Your task to perform on an android device: Go to wifi settings Image 0: 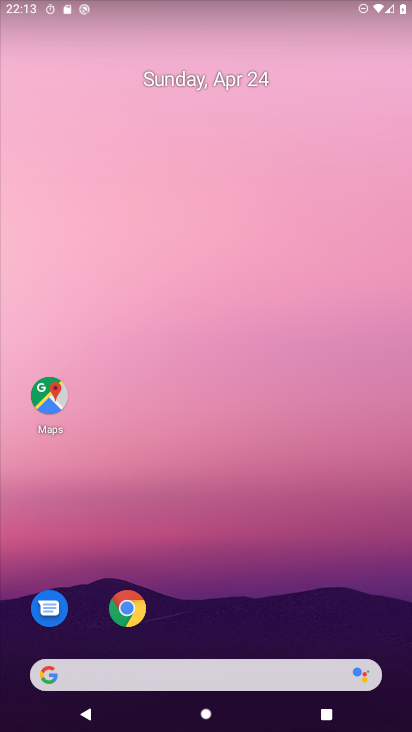
Step 0: drag from (294, 571) to (277, 72)
Your task to perform on an android device: Go to wifi settings Image 1: 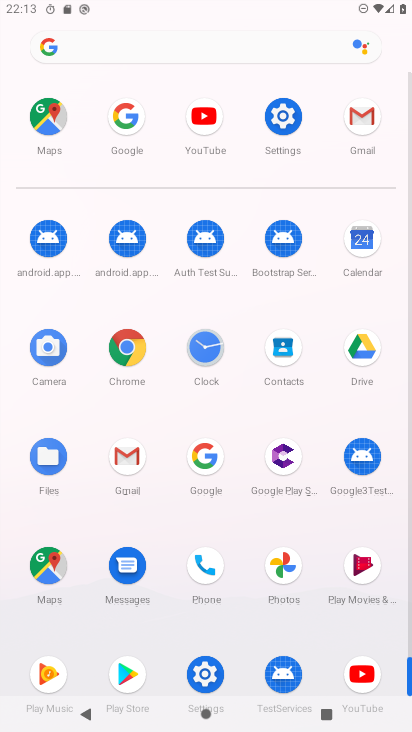
Step 1: click (283, 107)
Your task to perform on an android device: Go to wifi settings Image 2: 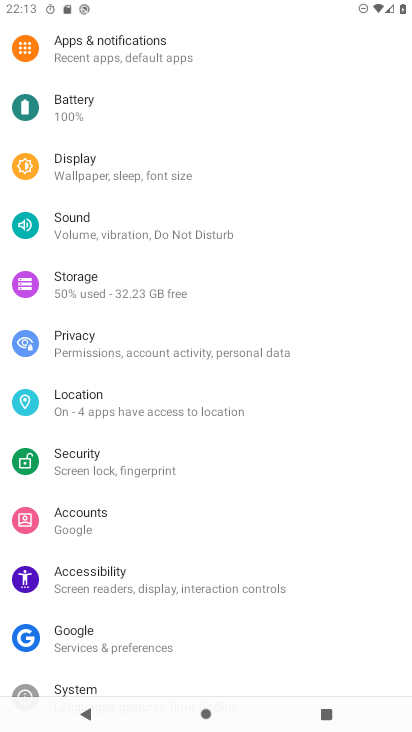
Step 2: drag from (280, 101) to (259, 486)
Your task to perform on an android device: Go to wifi settings Image 3: 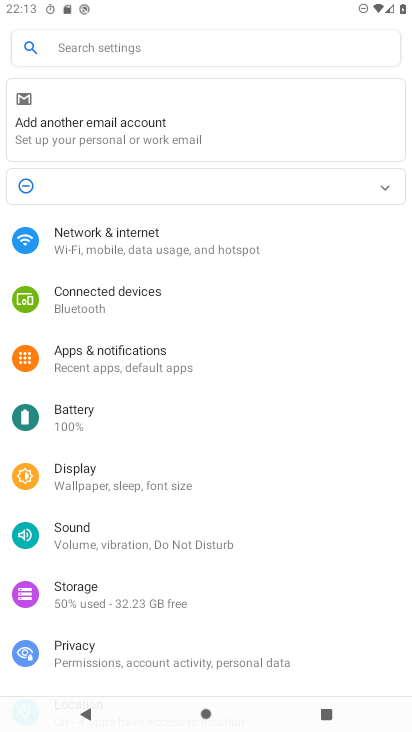
Step 3: click (223, 231)
Your task to perform on an android device: Go to wifi settings Image 4: 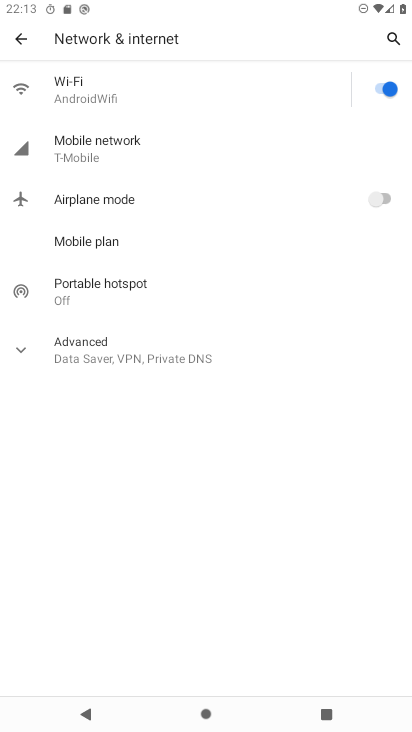
Step 4: click (206, 87)
Your task to perform on an android device: Go to wifi settings Image 5: 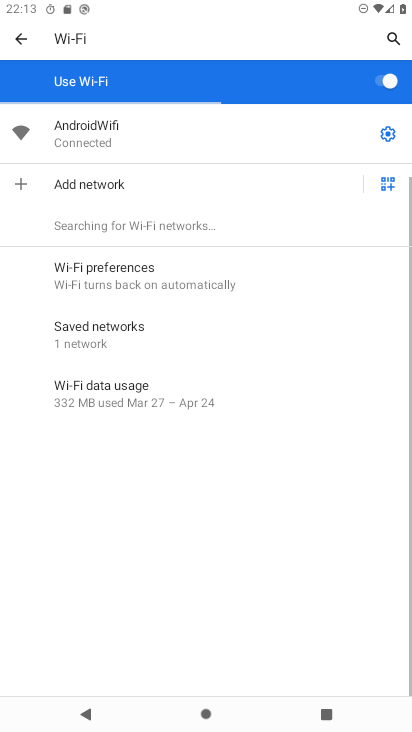
Step 5: task complete